Your task to perform on an android device: Open privacy settings Image 0: 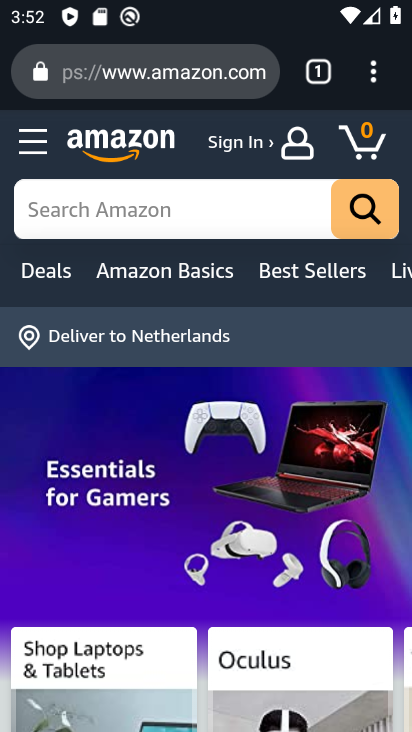
Step 0: press home button
Your task to perform on an android device: Open privacy settings Image 1: 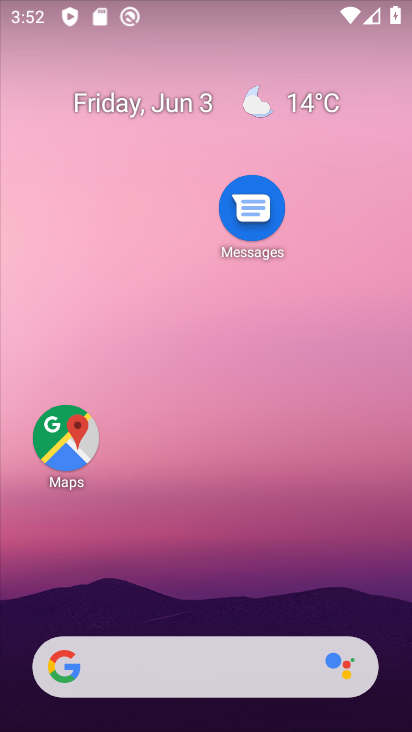
Step 1: drag from (185, 611) to (192, 258)
Your task to perform on an android device: Open privacy settings Image 2: 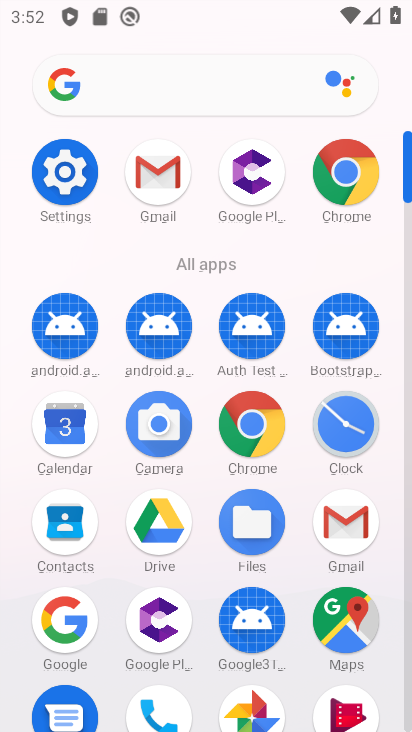
Step 2: click (344, 180)
Your task to perform on an android device: Open privacy settings Image 3: 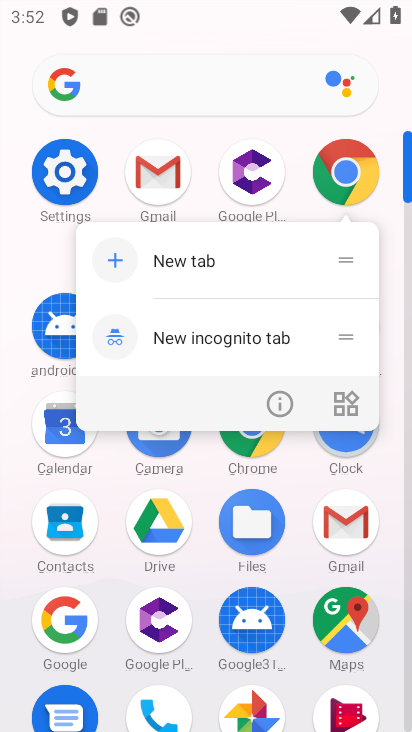
Step 3: click (344, 180)
Your task to perform on an android device: Open privacy settings Image 4: 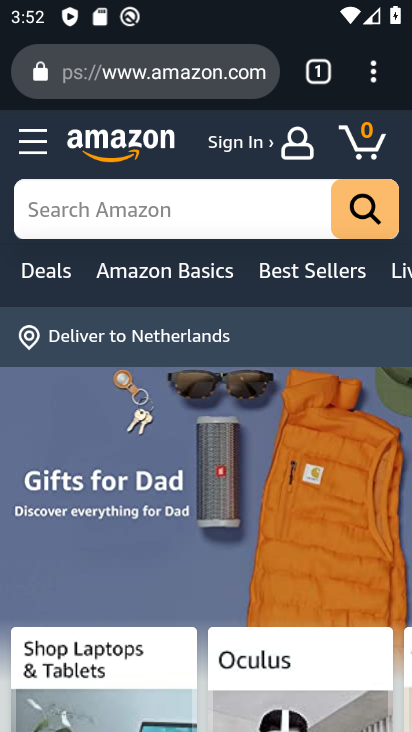
Step 4: press home button
Your task to perform on an android device: Open privacy settings Image 5: 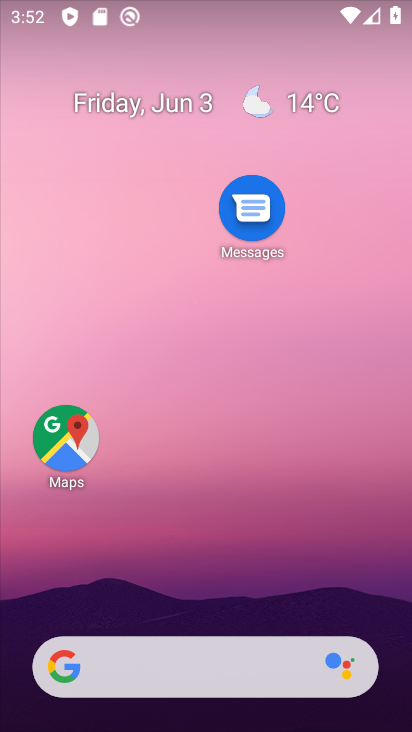
Step 5: drag from (249, 591) to (306, 133)
Your task to perform on an android device: Open privacy settings Image 6: 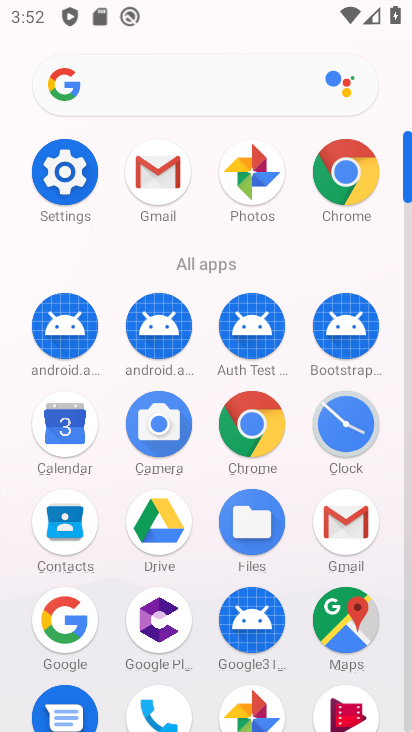
Step 6: click (52, 167)
Your task to perform on an android device: Open privacy settings Image 7: 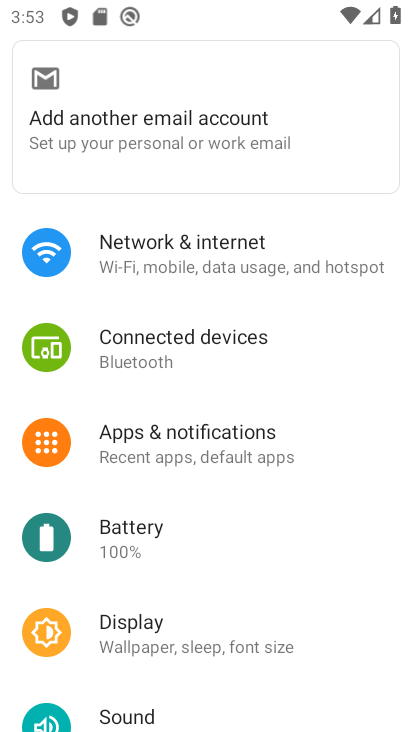
Step 7: drag from (188, 573) to (271, 295)
Your task to perform on an android device: Open privacy settings Image 8: 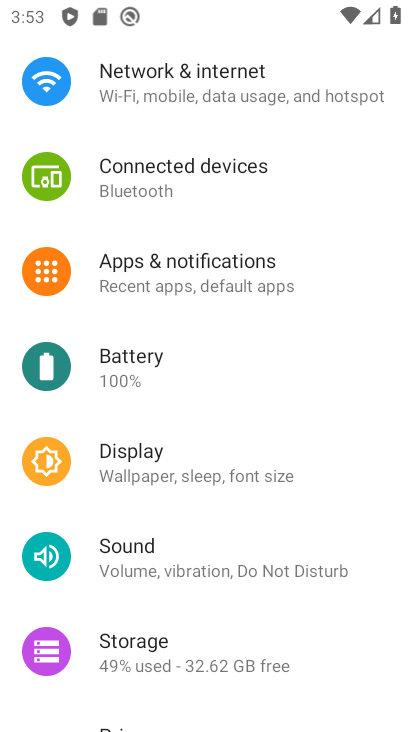
Step 8: drag from (239, 490) to (254, 312)
Your task to perform on an android device: Open privacy settings Image 9: 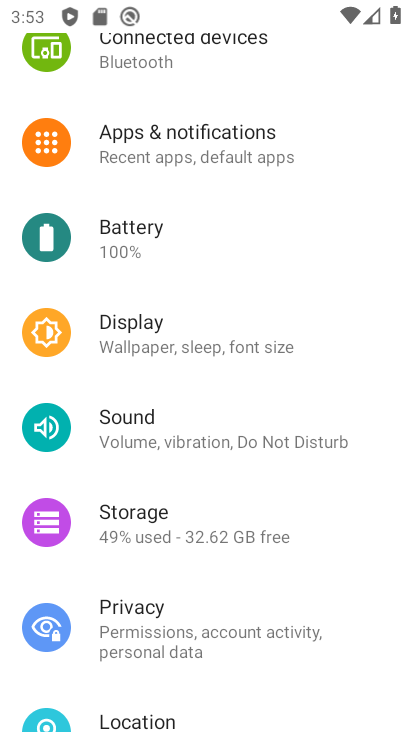
Step 9: click (131, 617)
Your task to perform on an android device: Open privacy settings Image 10: 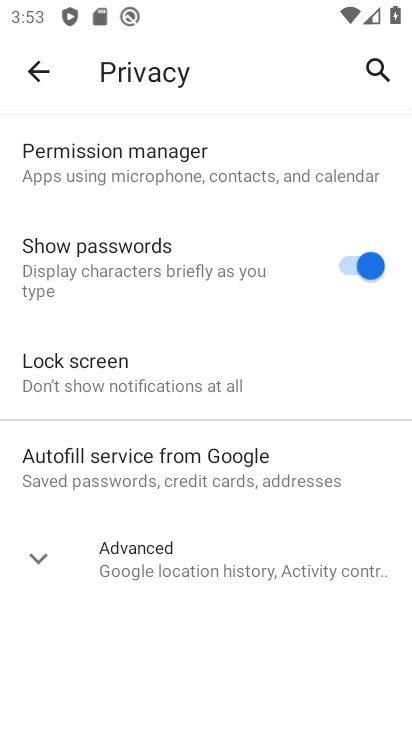
Step 10: task complete